Your task to perform on an android device: turn off location history Image 0: 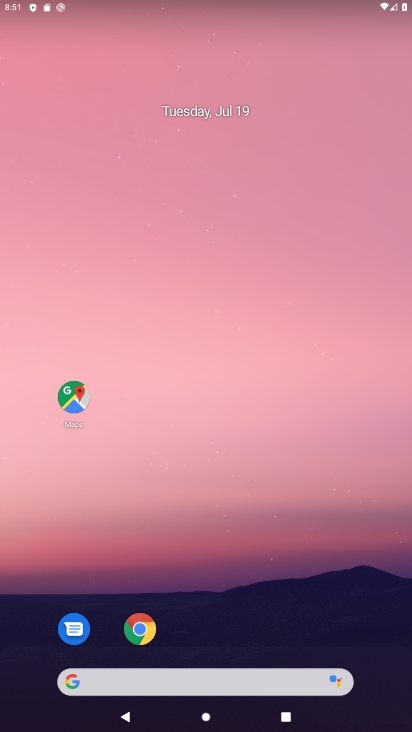
Step 0: drag from (195, 669) to (197, 135)
Your task to perform on an android device: turn off location history Image 1: 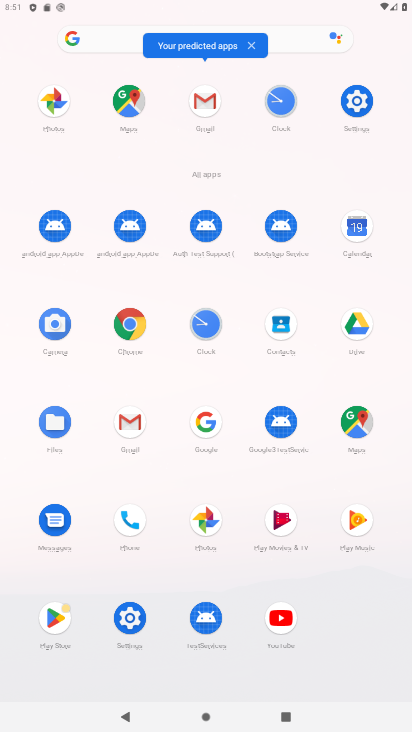
Step 1: click (357, 96)
Your task to perform on an android device: turn off location history Image 2: 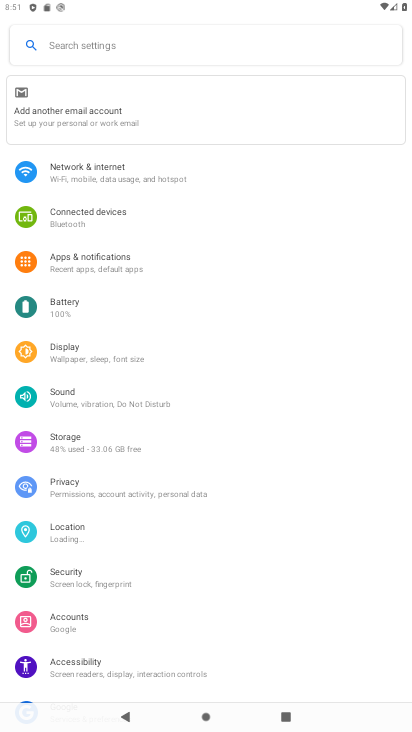
Step 2: click (34, 541)
Your task to perform on an android device: turn off location history Image 3: 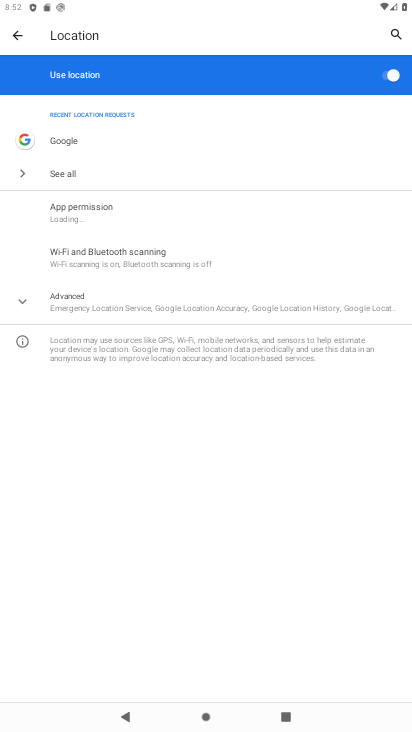
Step 3: click (381, 73)
Your task to perform on an android device: turn off location history Image 4: 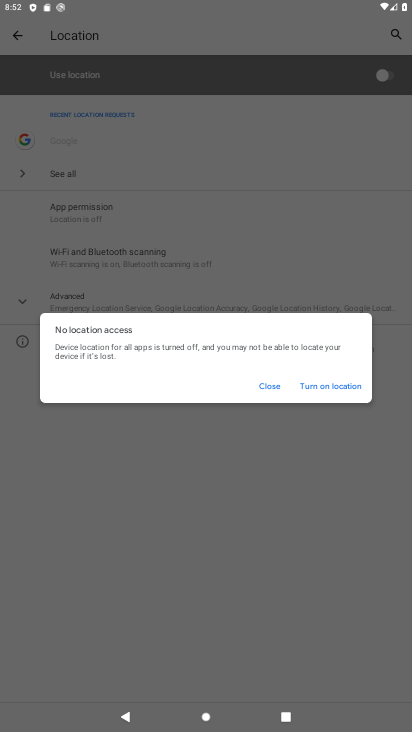
Step 4: task complete